Your task to perform on an android device: see tabs open on other devices in the chrome app Image 0: 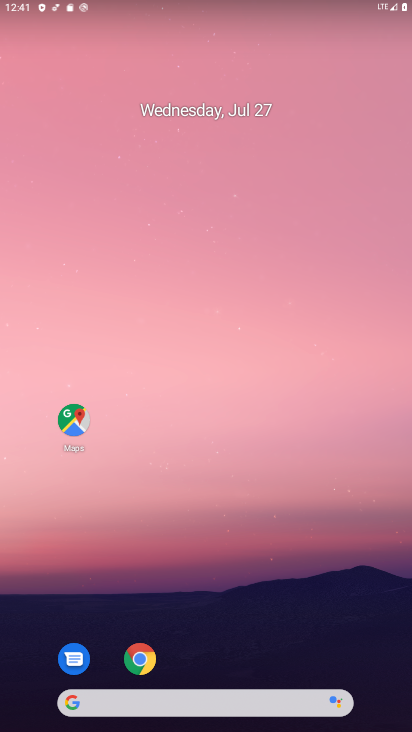
Step 0: drag from (224, 651) to (171, 175)
Your task to perform on an android device: see tabs open on other devices in the chrome app Image 1: 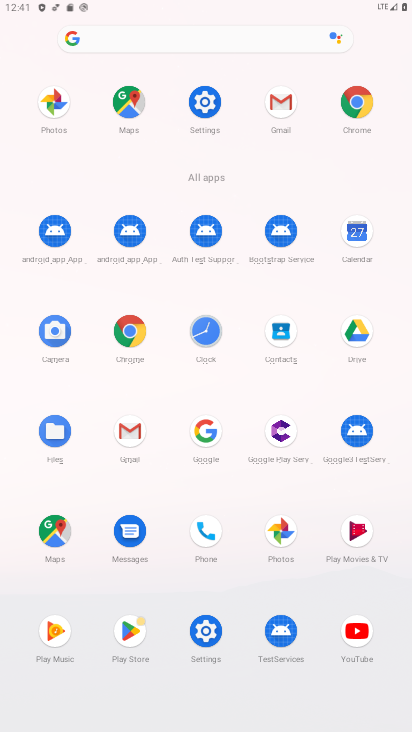
Step 1: click (345, 107)
Your task to perform on an android device: see tabs open on other devices in the chrome app Image 2: 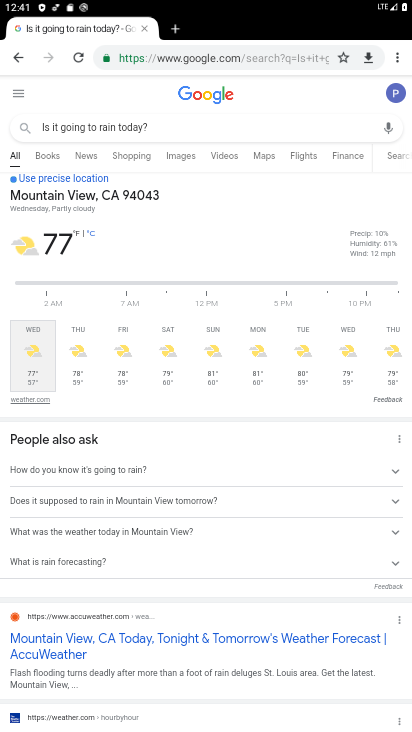
Step 2: click (393, 64)
Your task to perform on an android device: see tabs open on other devices in the chrome app Image 3: 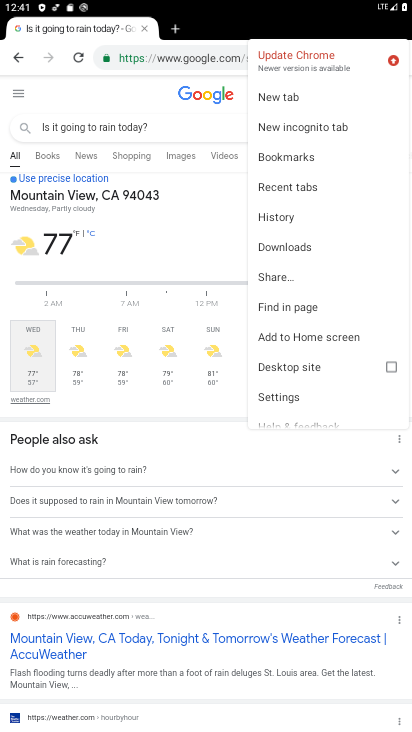
Step 3: click (331, 184)
Your task to perform on an android device: see tabs open on other devices in the chrome app Image 4: 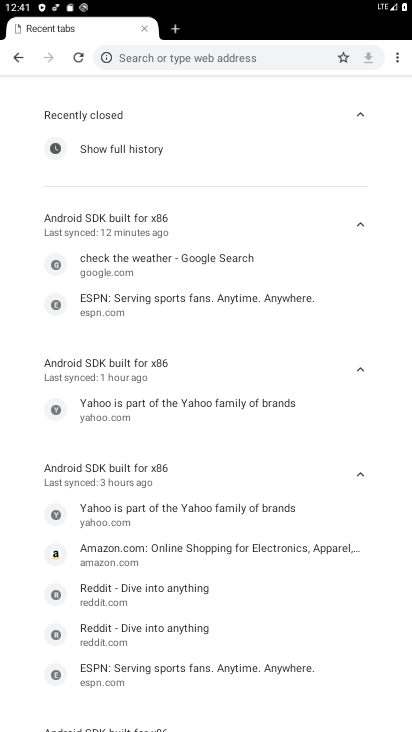
Step 4: task complete